Your task to perform on an android device: Go to eBay Image 0: 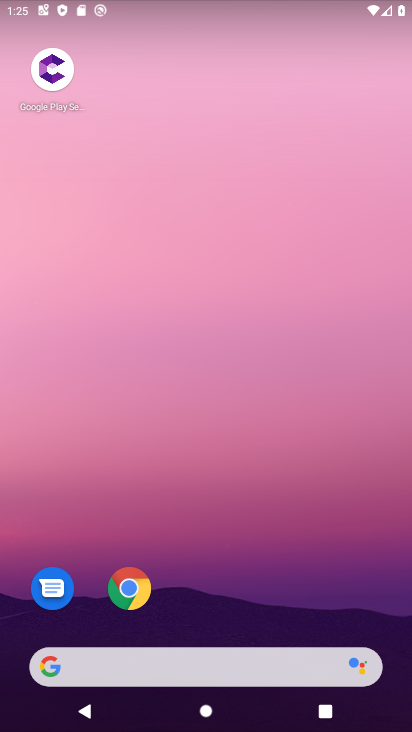
Step 0: click (109, 666)
Your task to perform on an android device: Go to eBay Image 1: 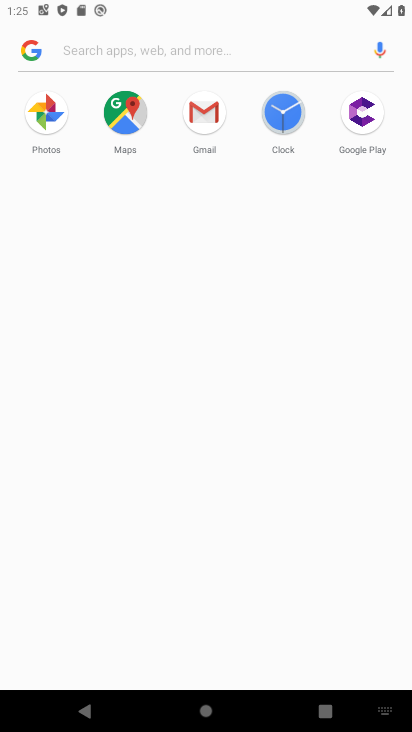
Step 1: type "eBay"
Your task to perform on an android device: Go to eBay Image 2: 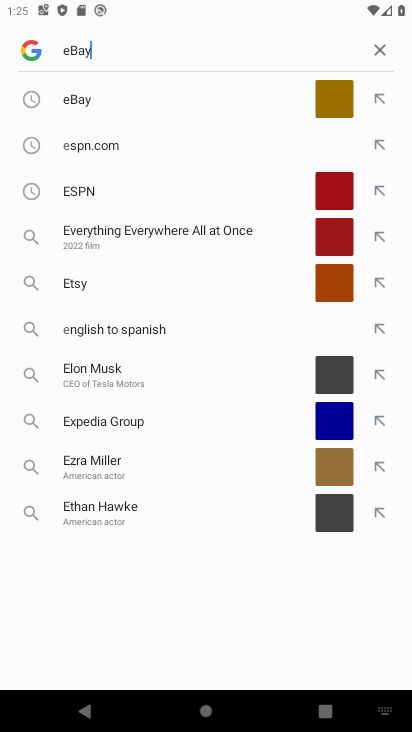
Step 2: type ""
Your task to perform on an android device: Go to eBay Image 3: 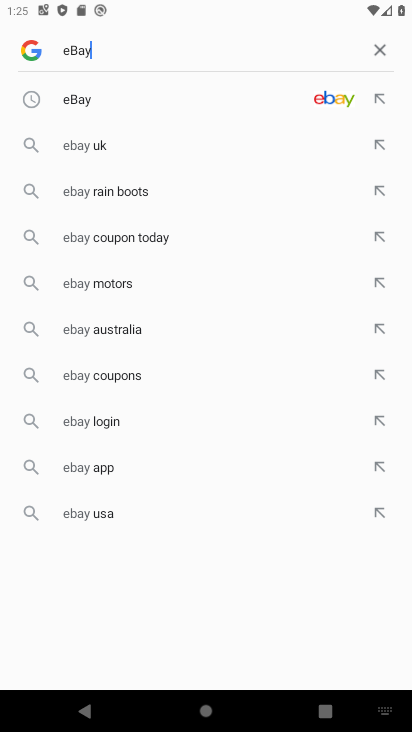
Step 3: click (60, 106)
Your task to perform on an android device: Go to eBay Image 4: 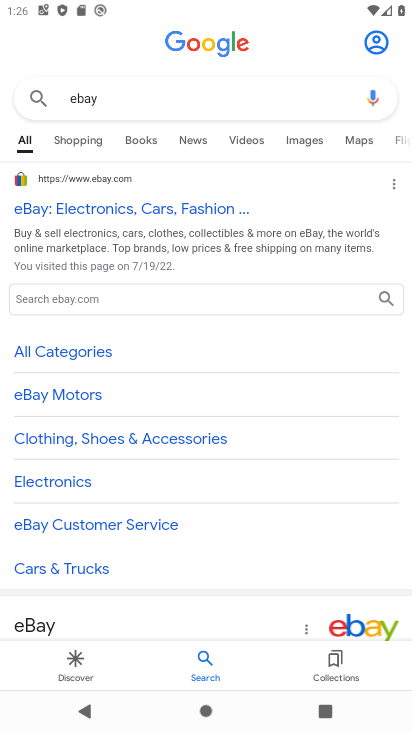
Step 4: task complete